Your task to perform on an android device: find photos in the google photos app Image 0: 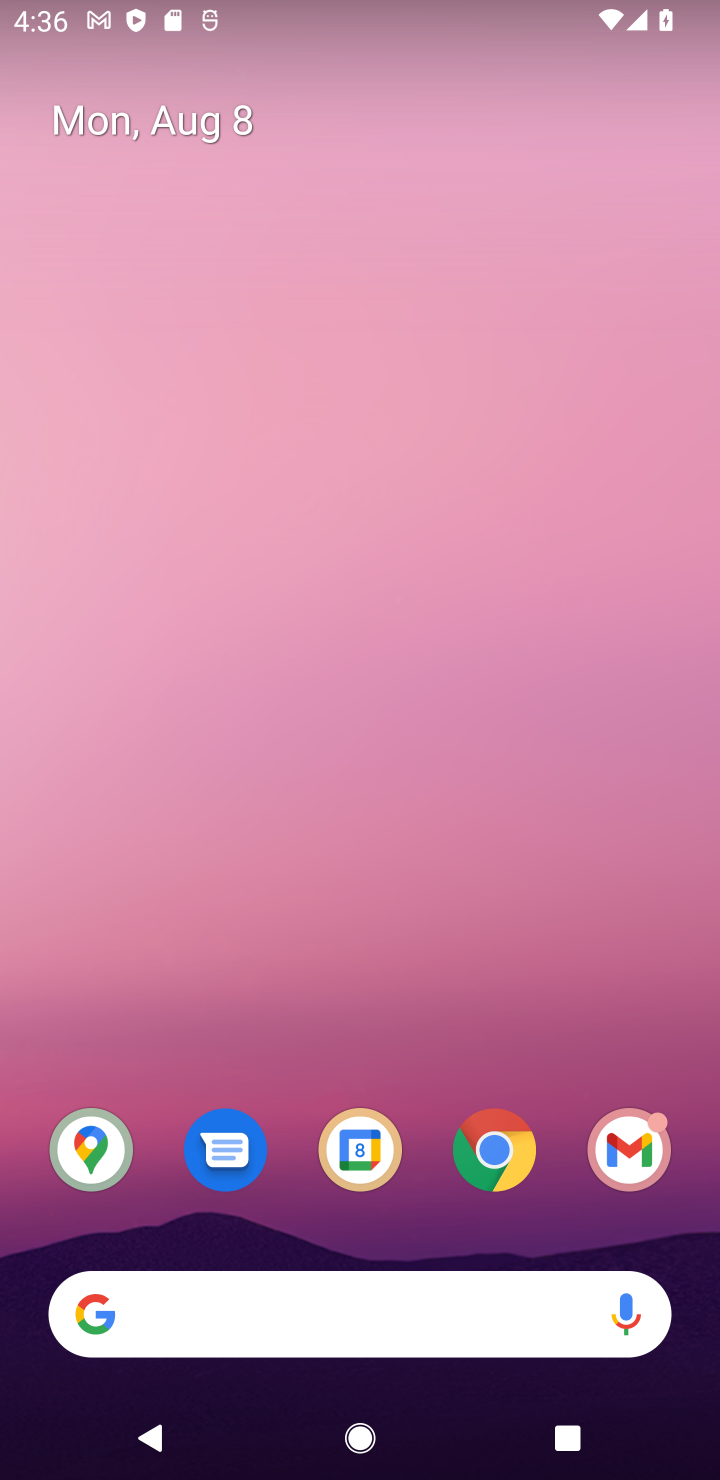
Step 0: drag from (405, 1236) to (403, 687)
Your task to perform on an android device: find photos in the google photos app Image 1: 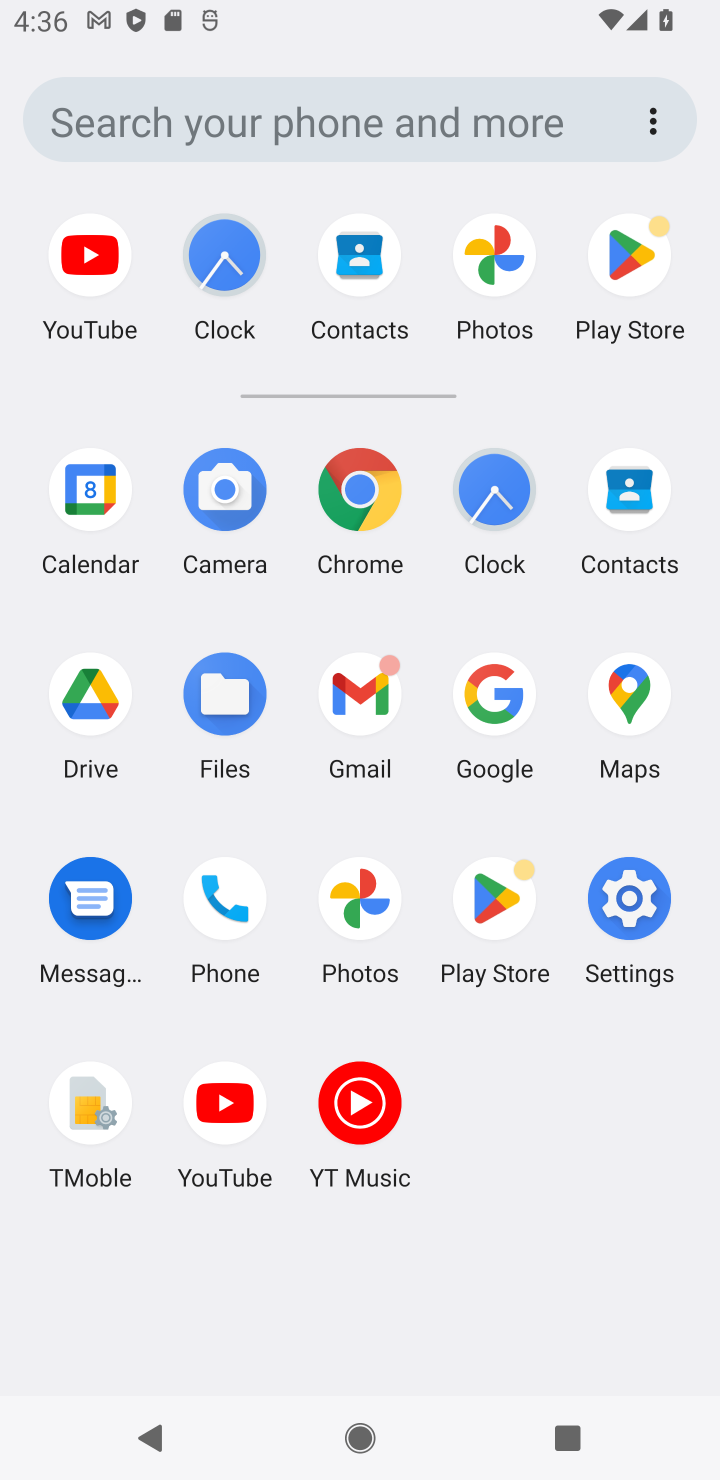
Step 1: click (516, 311)
Your task to perform on an android device: find photos in the google photos app Image 2: 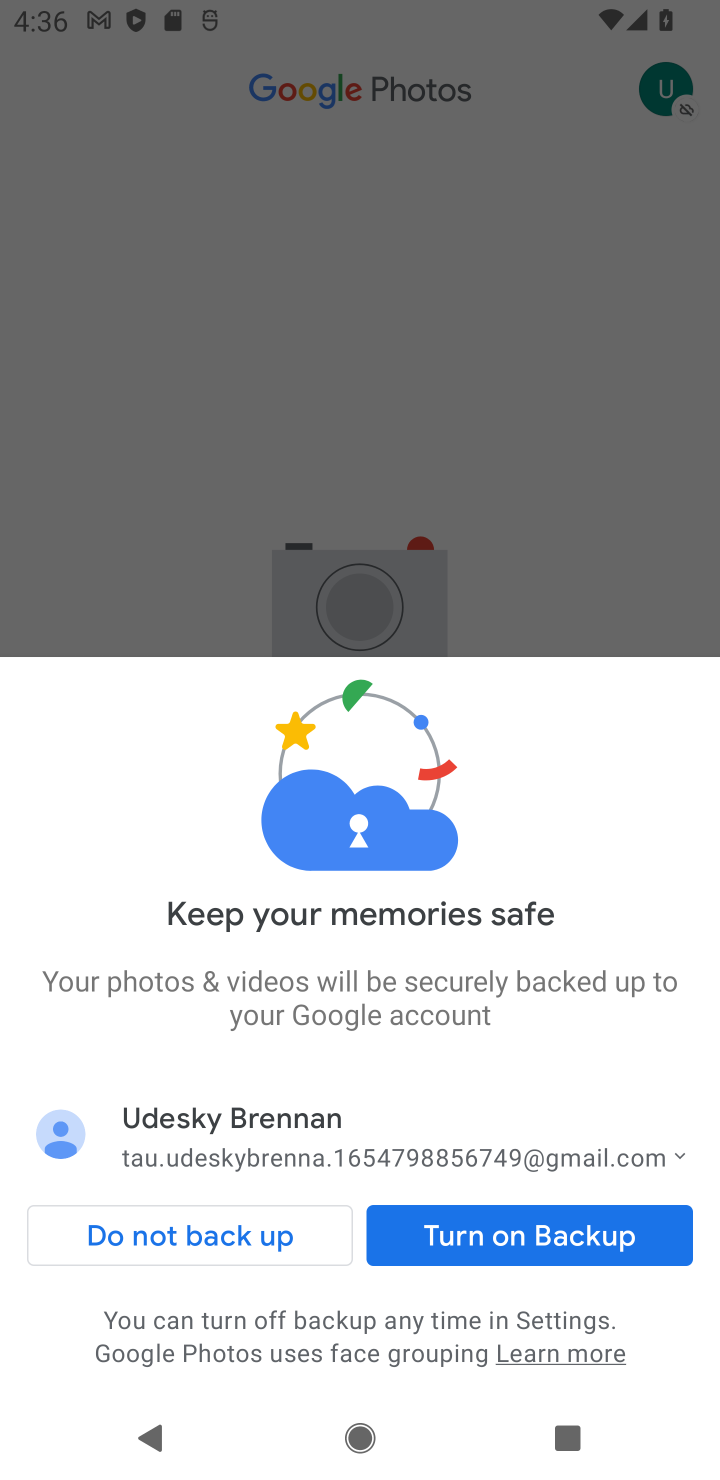
Step 2: task complete